Your task to perform on an android device: Play the new Selena Gomez video on YouTube Image 0: 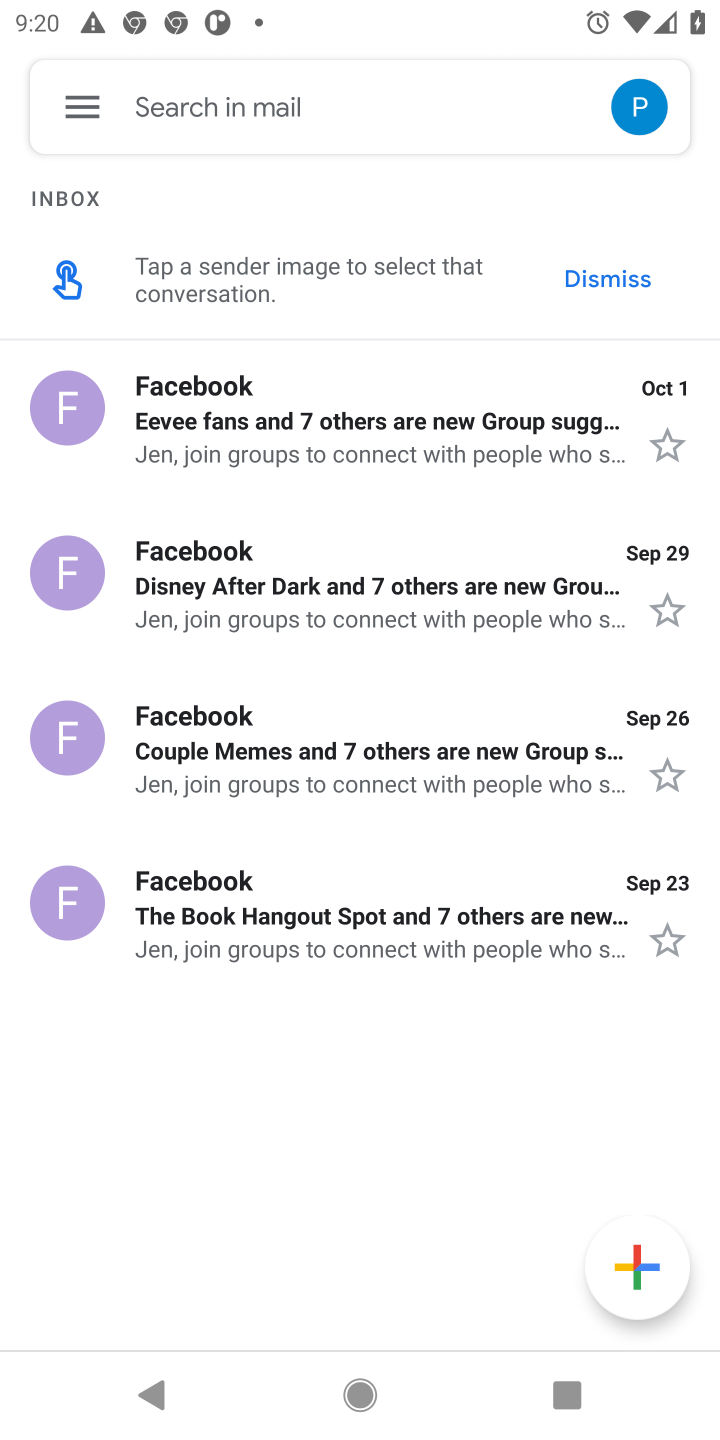
Step 0: press home button
Your task to perform on an android device: Play the new Selena Gomez video on YouTube Image 1: 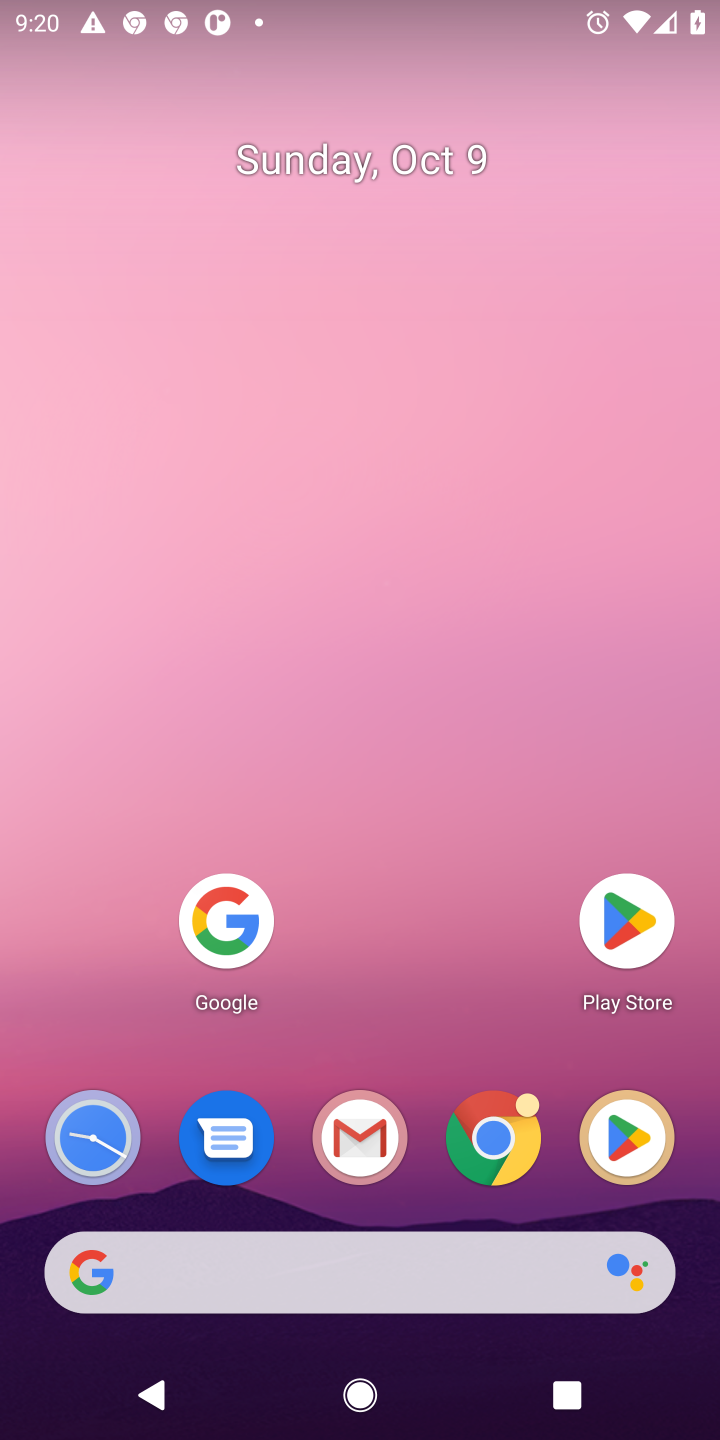
Step 1: click (211, 910)
Your task to perform on an android device: Play the new Selena Gomez video on YouTube Image 2: 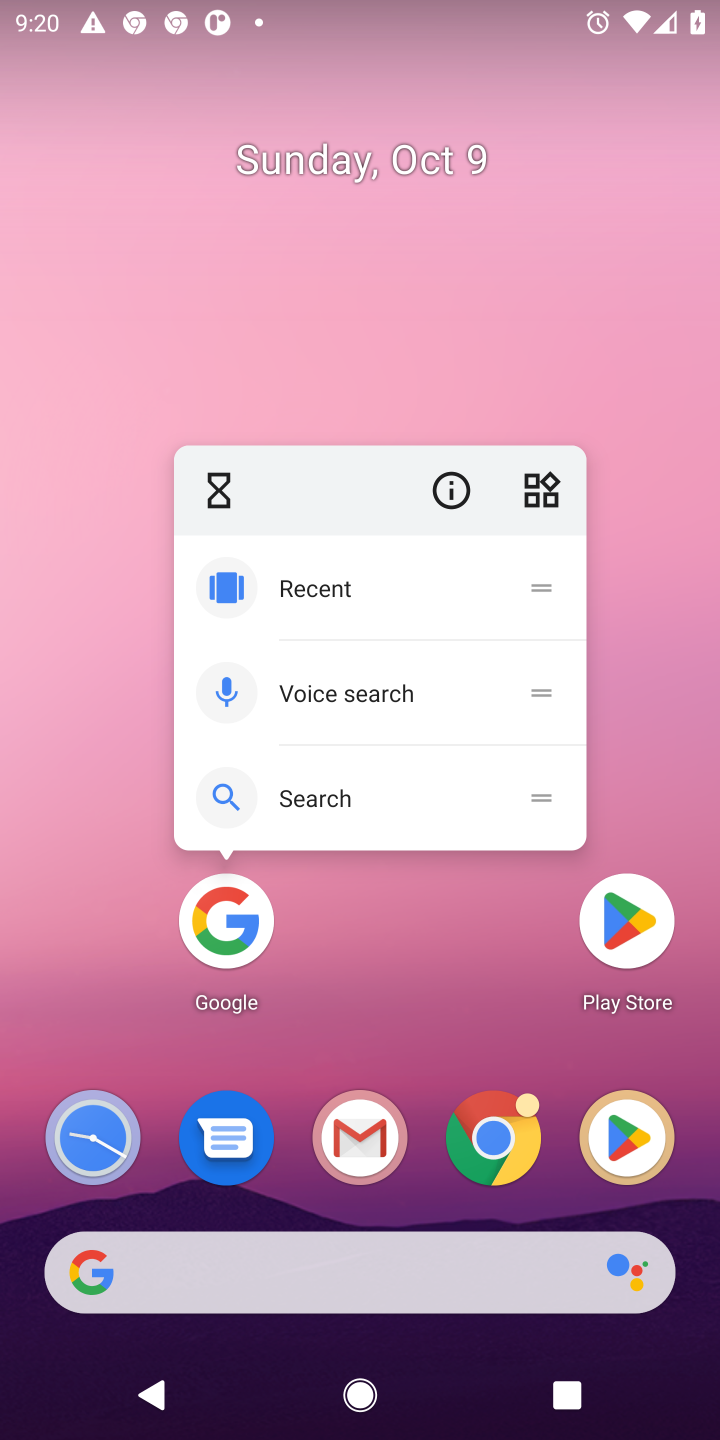
Step 2: click (240, 932)
Your task to perform on an android device: Play the new Selena Gomez video on YouTube Image 3: 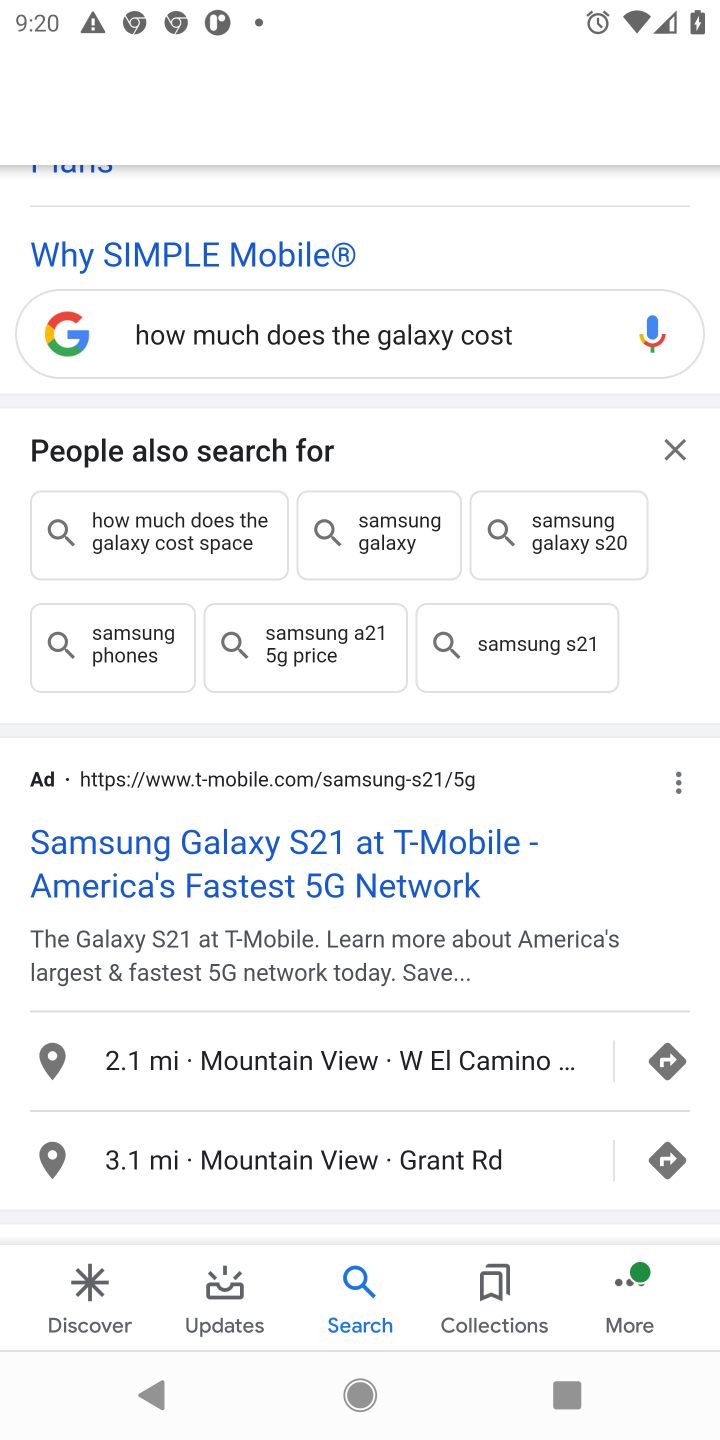
Step 3: click (464, 339)
Your task to perform on an android device: Play the new Selena Gomez video on YouTube Image 4: 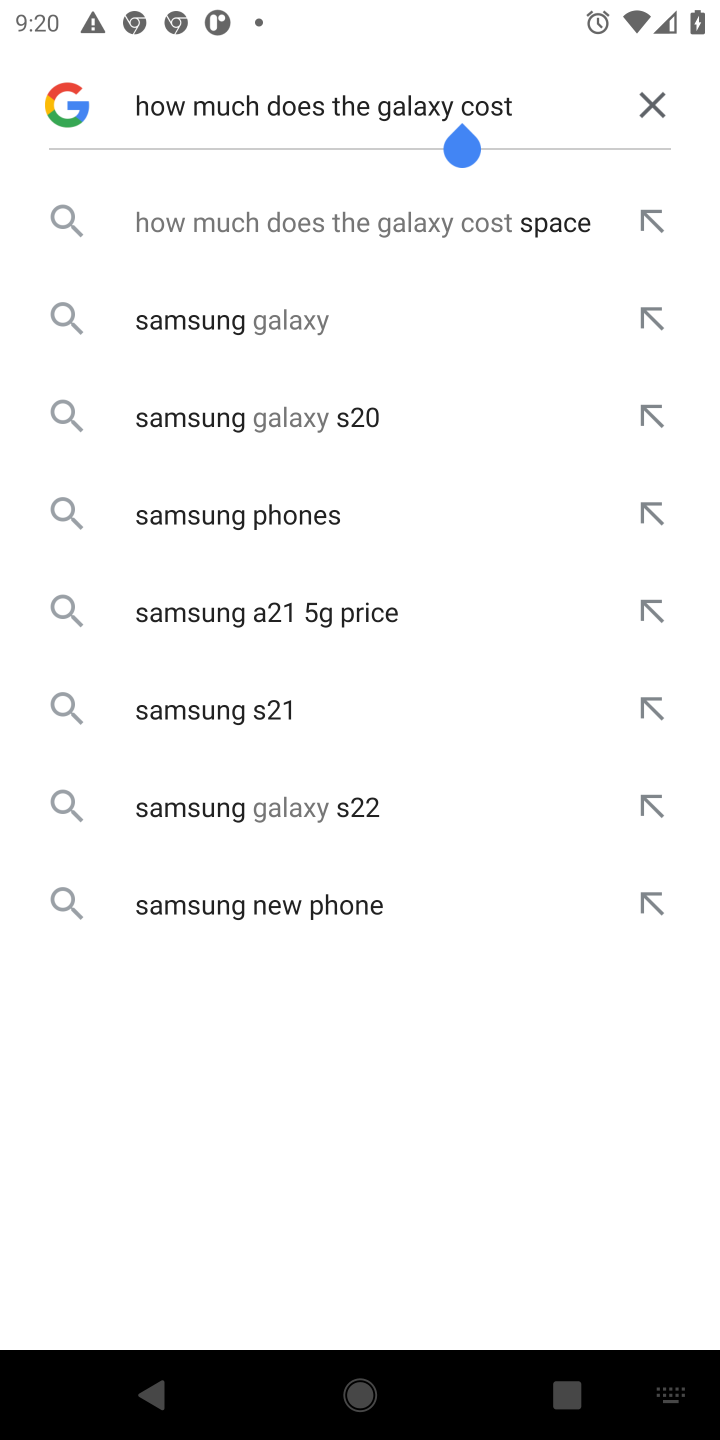
Step 4: click (646, 100)
Your task to perform on an android device: Play the new Selena Gomez video on YouTube Image 5: 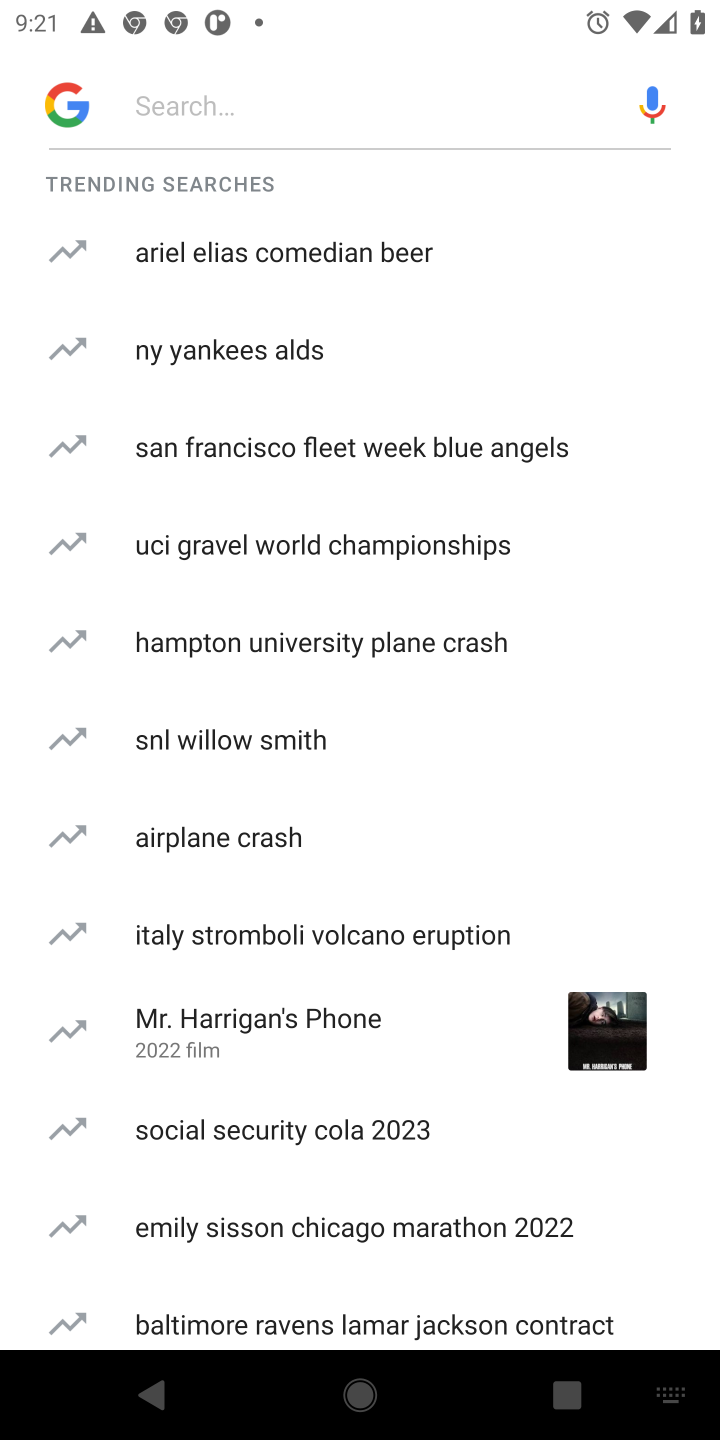
Step 5: click (238, 103)
Your task to perform on an android device: Play the new Selena Gomez video on YouTube Image 6: 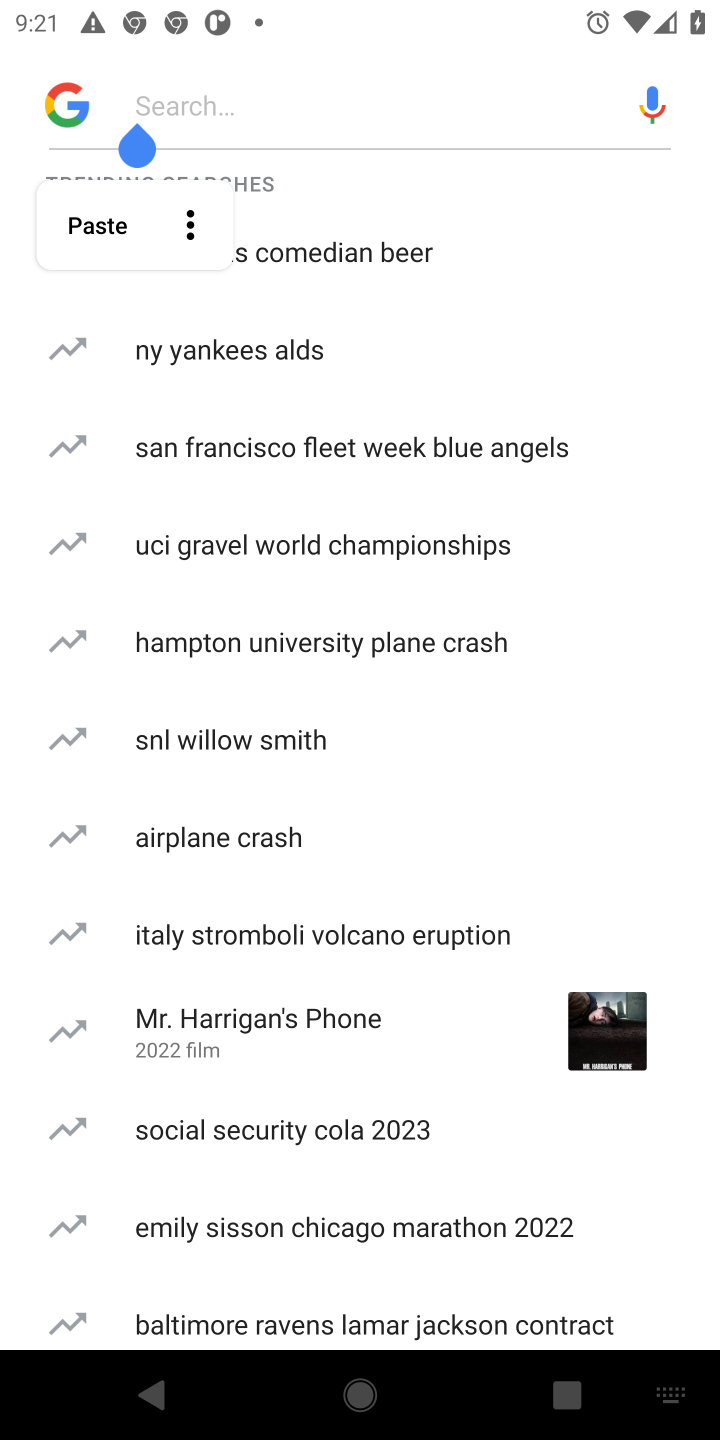
Step 6: type "Play the new Selena Gomez video on YouTube "
Your task to perform on an android device: Play the new Selena Gomez video on YouTube Image 7: 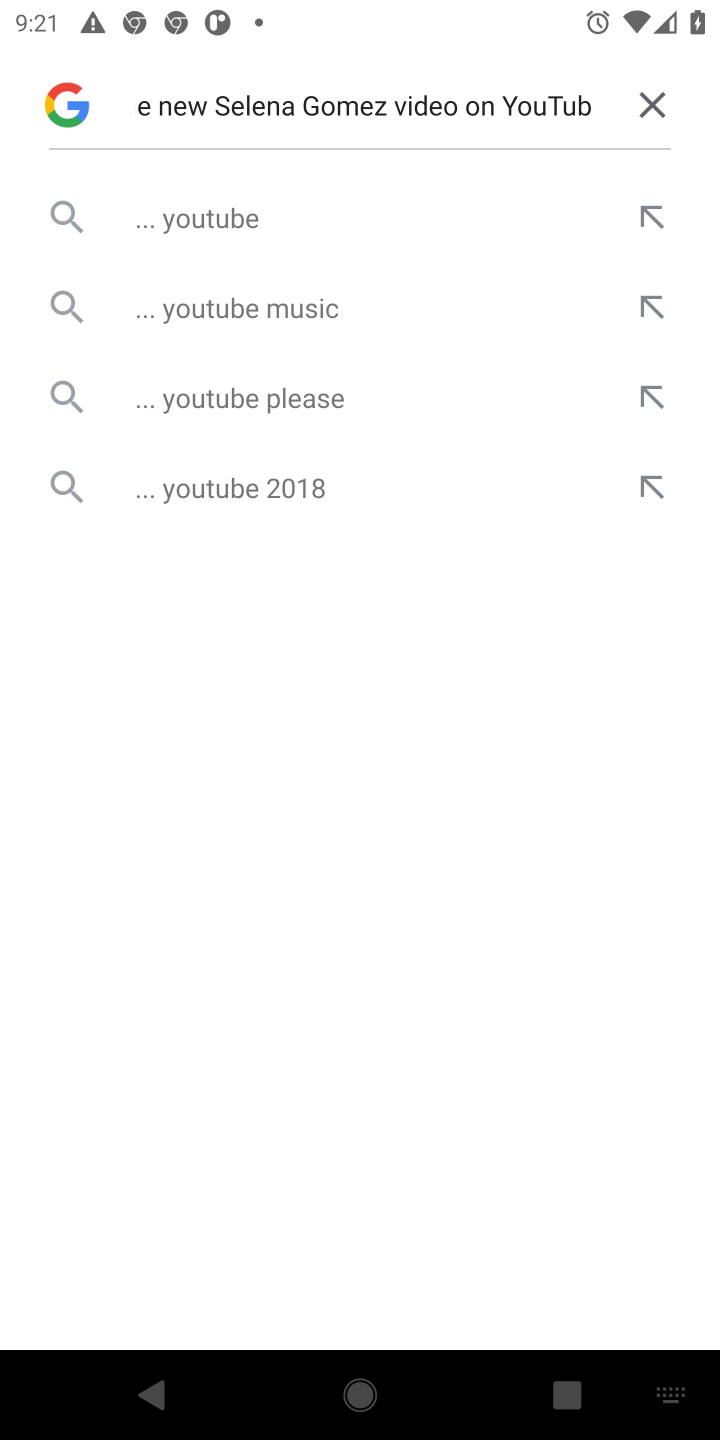
Step 7: click (274, 196)
Your task to perform on an android device: Play the new Selena Gomez video on YouTube Image 8: 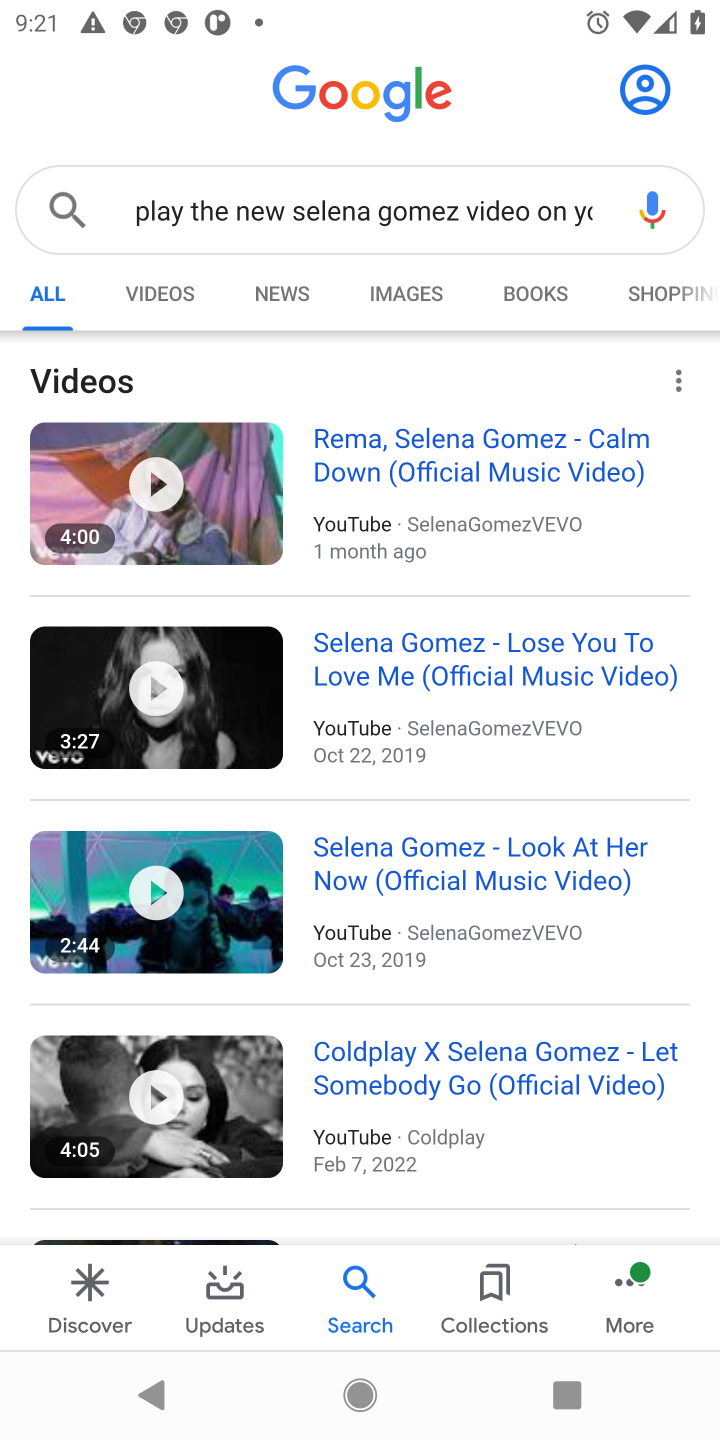
Step 8: drag from (390, 1210) to (538, 626)
Your task to perform on an android device: Play the new Selena Gomez video on YouTube Image 9: 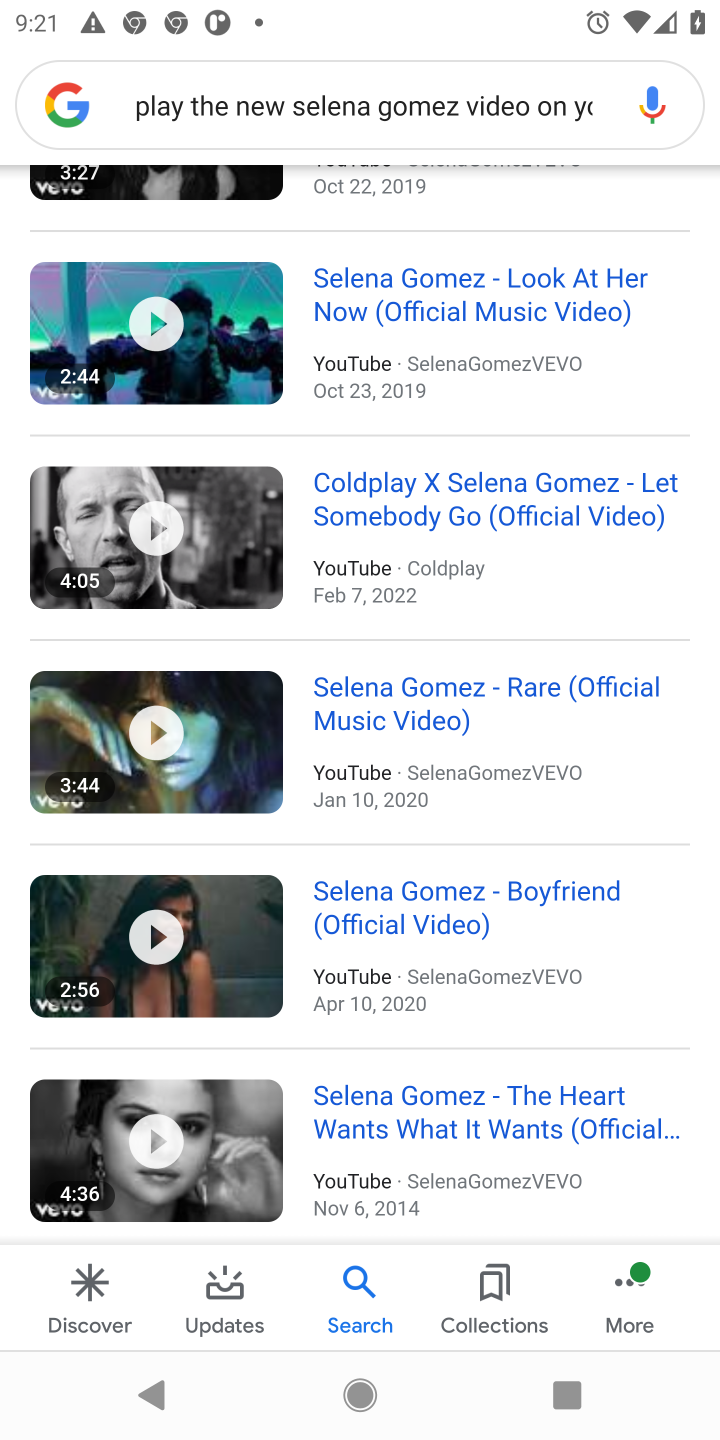
Step 9: drag from (466, 970) to (519, 116)
Your task to perform on an android device: Play the new Selena Gomez video on YouTube Image 10: 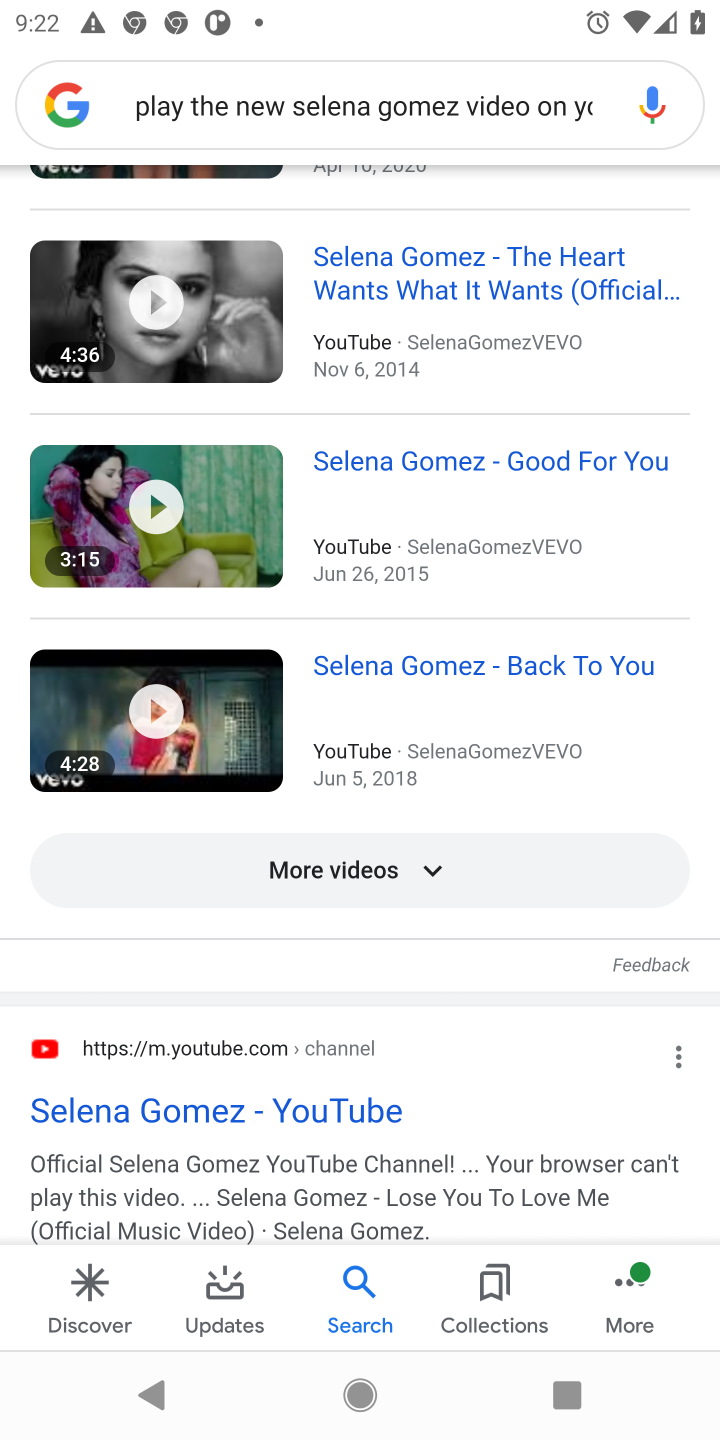
Step 10: drag from (459, 1155) to (409, 268)
Your task to perform on an android device: Play the new Selena Gomez video on YouTube Image 11: 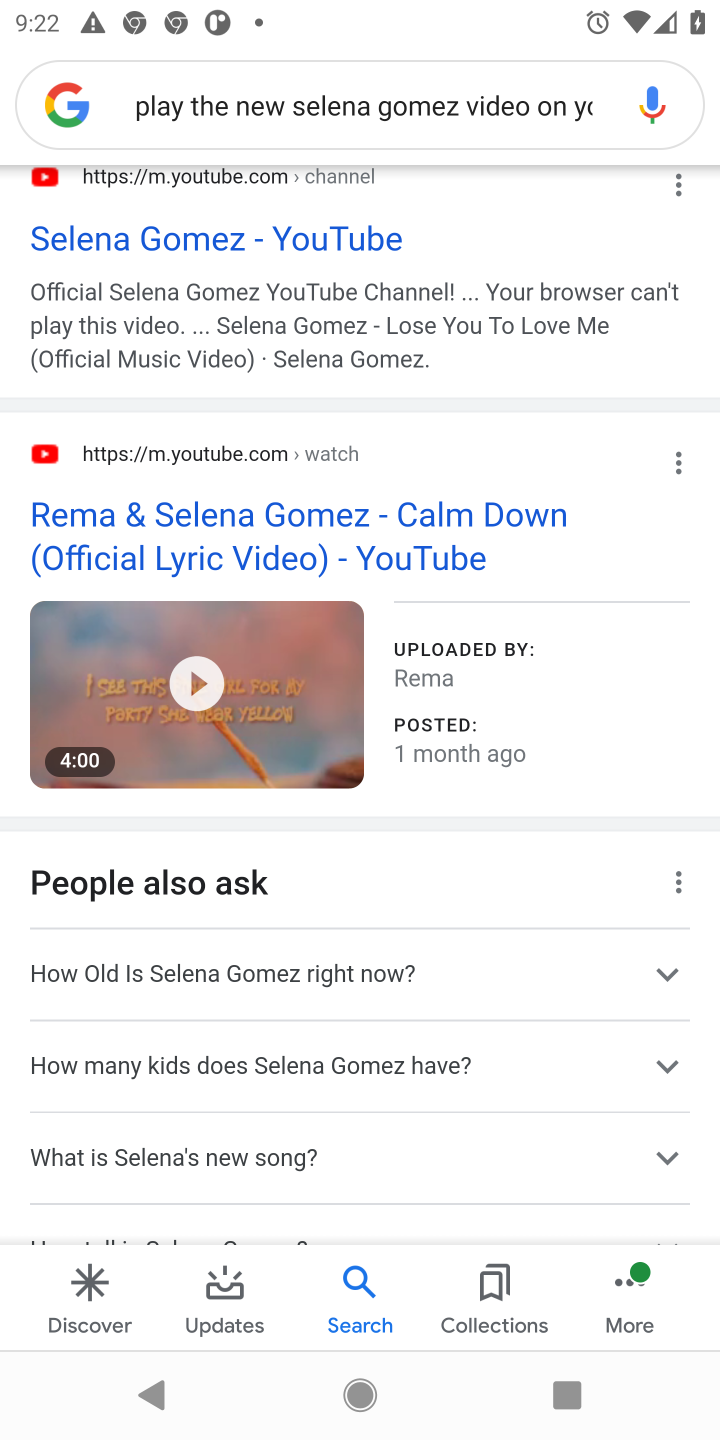
Step 11: click (275, 246)
Your task to perform on an android device: Play the new Selena Gomez video on YouTube Image 12: 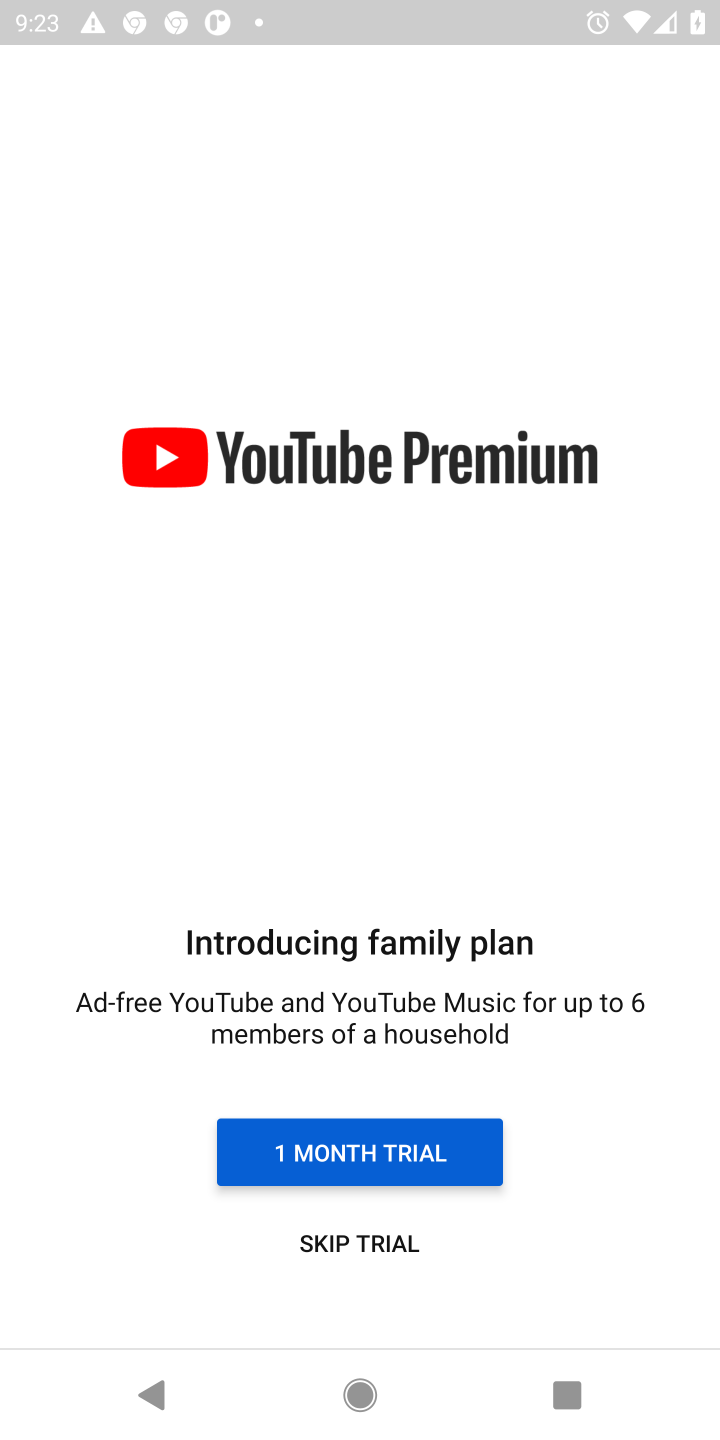
Step 12: click (349, 1242)
Your task to perform on an android device: Play the new Selena Gomez video on YouTube Image 13: 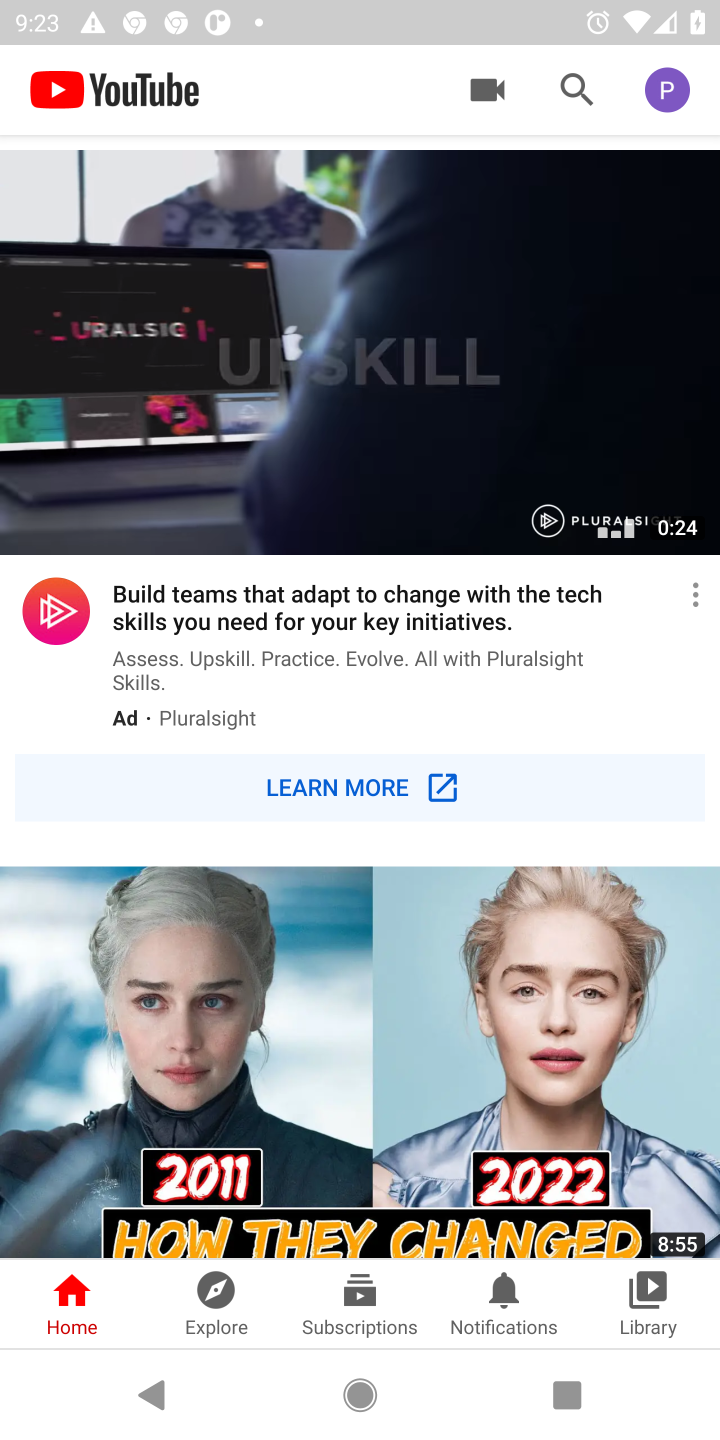
Step 13: click (559, 72)
Your task to perform on an android device: Play the new Selena Gomez video on YouTube Image 14: 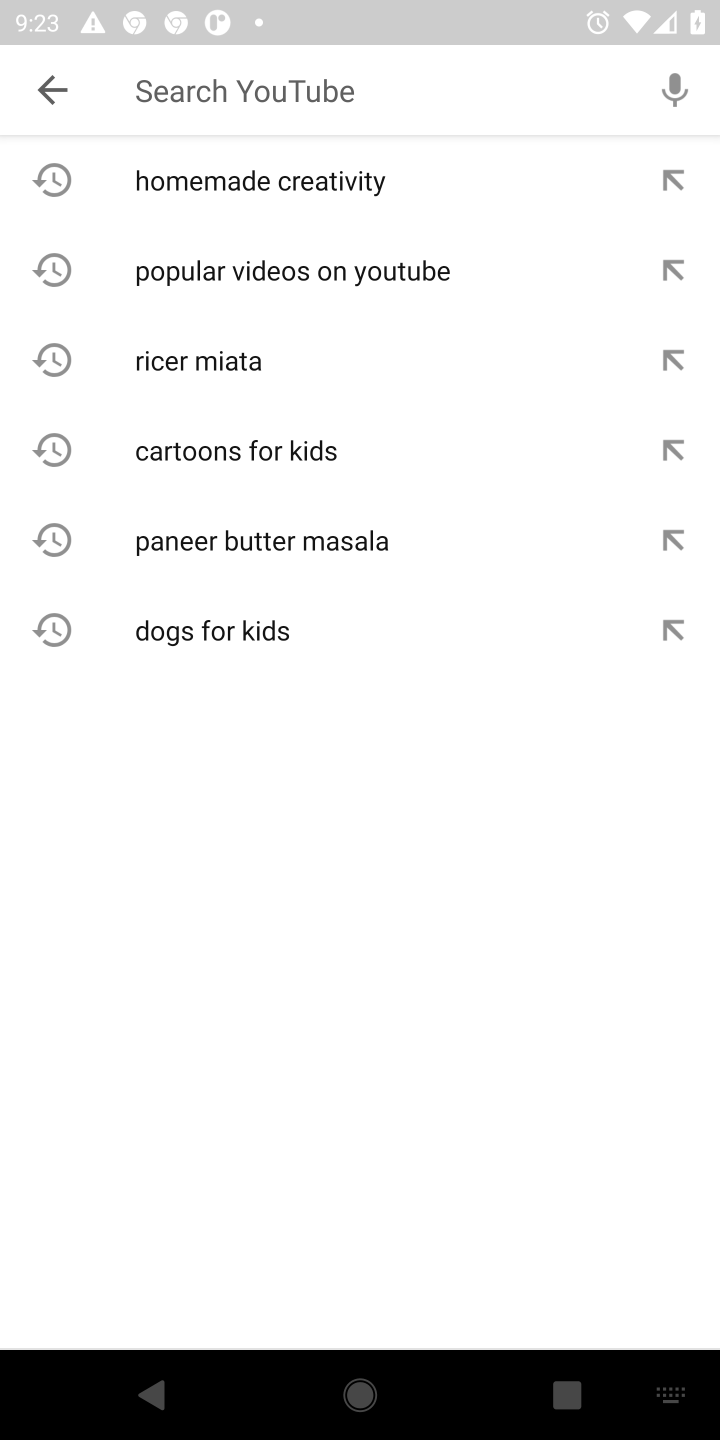
Step 14: click (317, 87)
Your task to perform on an android device: Play the new Selena Gomez video on YouTube Image 15: 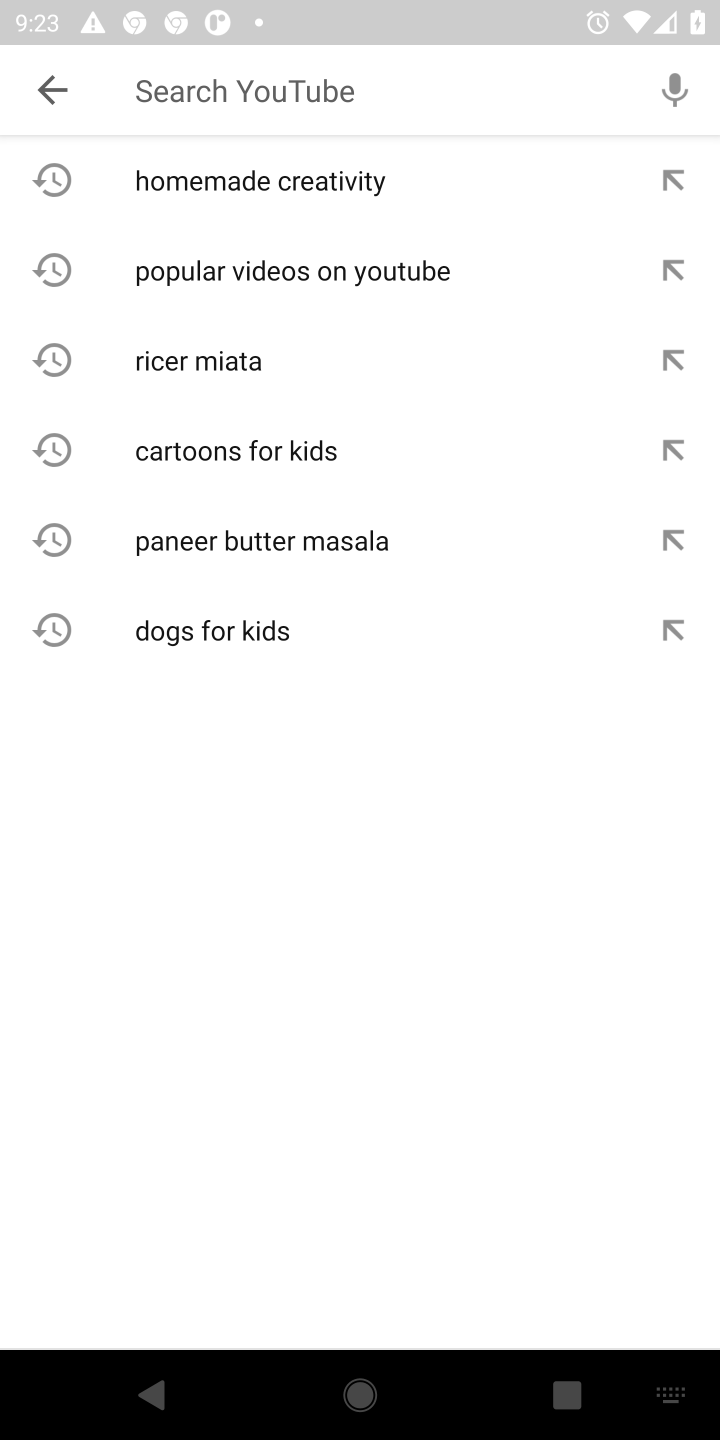
Step 15: type " new Selena Gomez  "
Your task to perform on an android device: Play the new Selena Gomez video on YouTube Image 16: 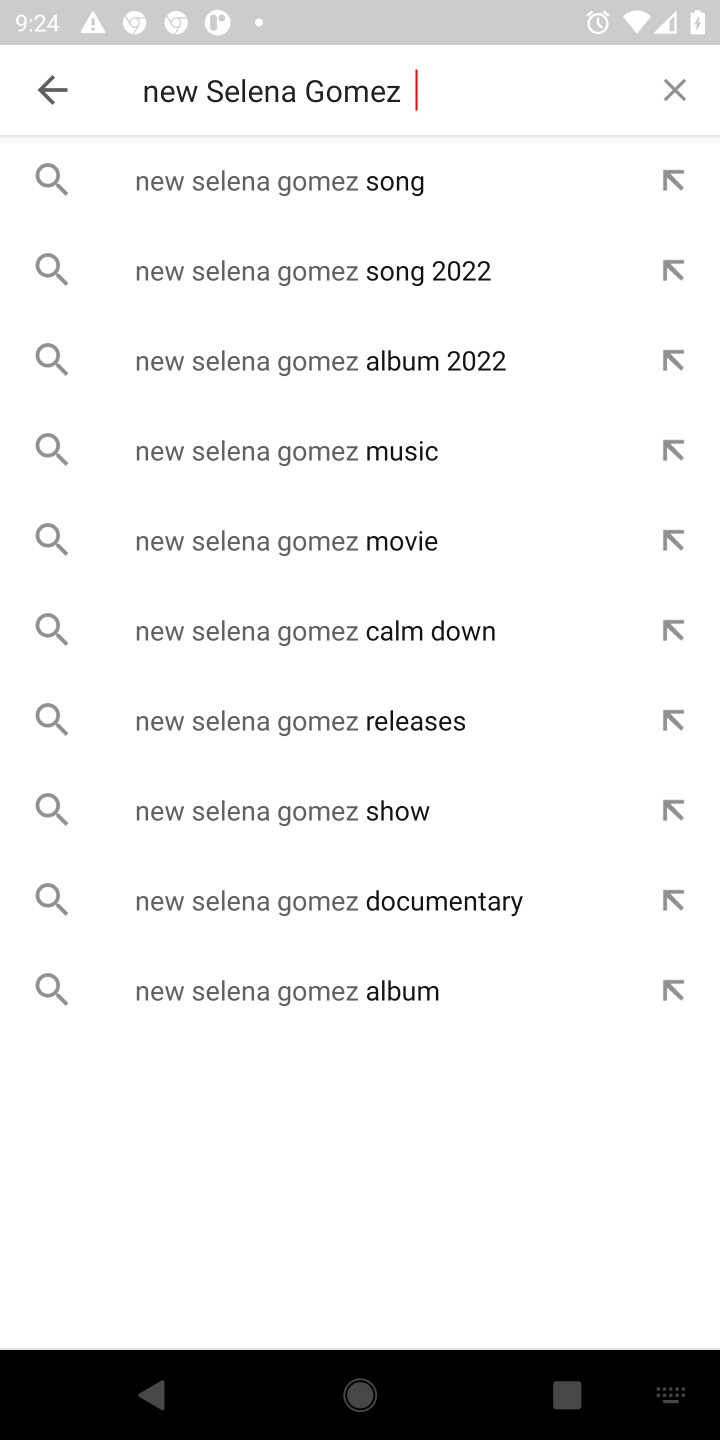
Step 16: click (370, 177)
Your task to perform on an android device: Play the new Selena Gomez video on YouTube Image 17: 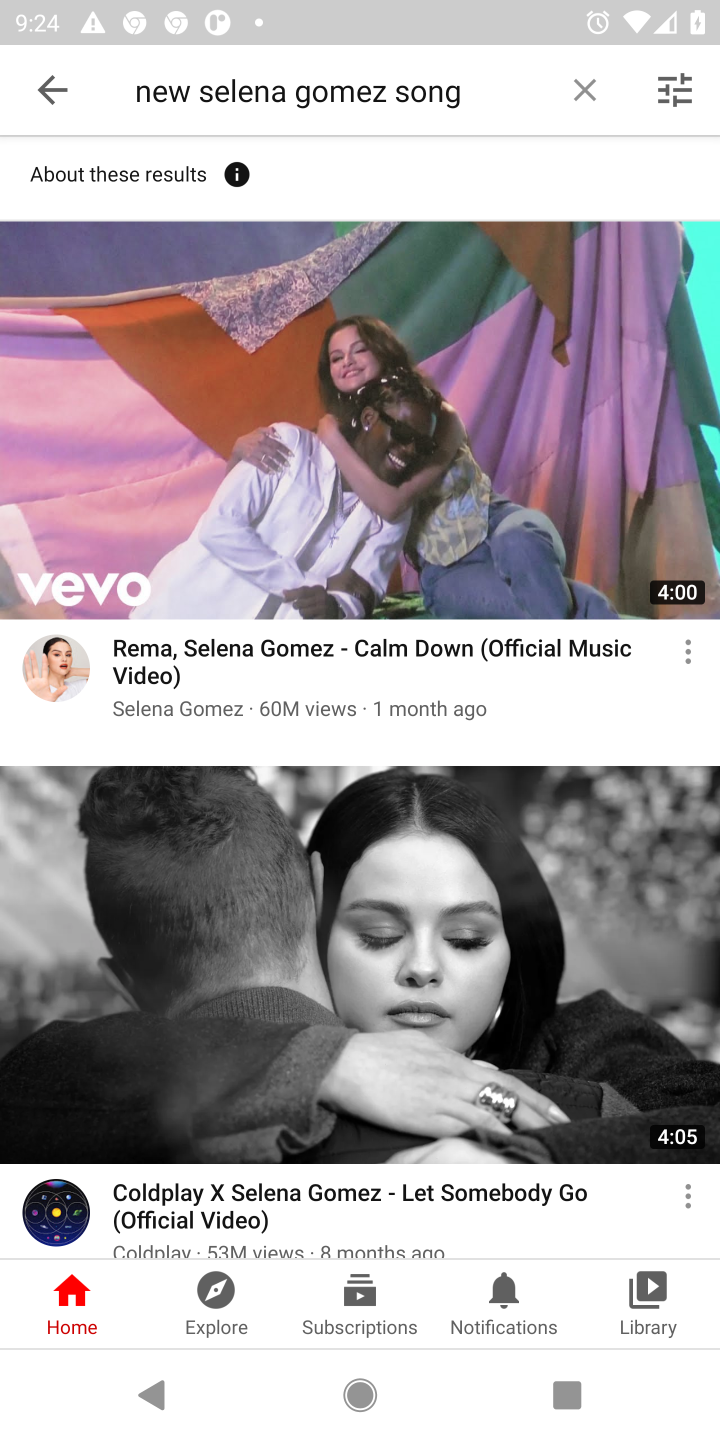
Step 17: task complete